Your task to perform on an android device: empty trash in google photos Image 0: 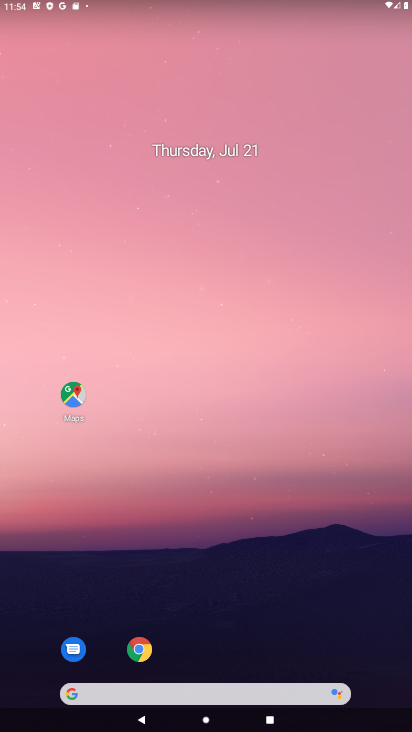
Step 0: drag from (227, 728) to (231, 142)
Your task to perform on an android device: empty trash in google photos Image 1: 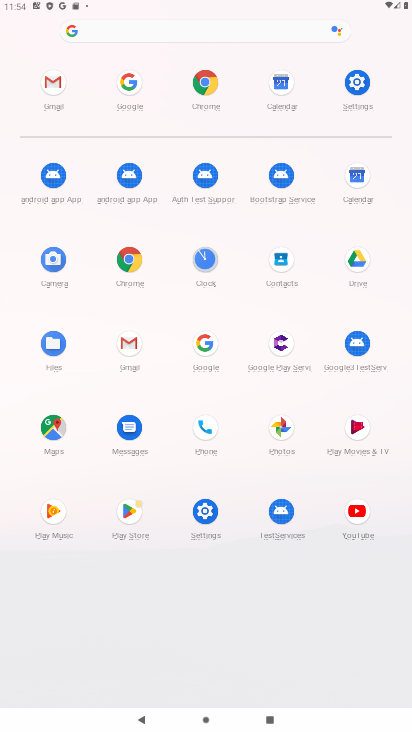
Step 1: click (285, 425)
Your task to perform on an android device: empty trash in google photos Image 2: 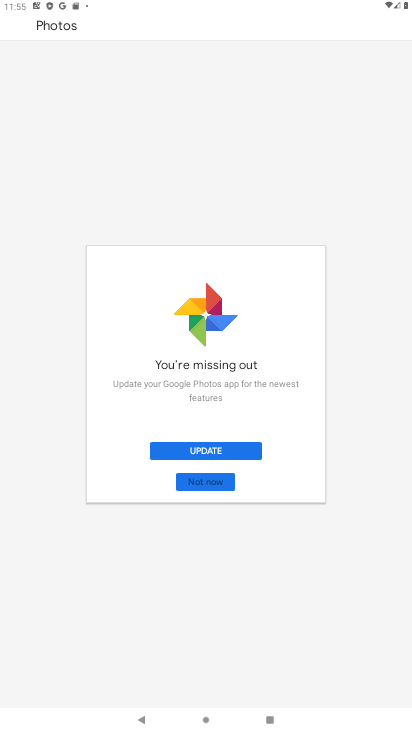
Step 2: task complete